Your task to perform on an android device: Search for seafood restaurants on Google Maps Image 0: 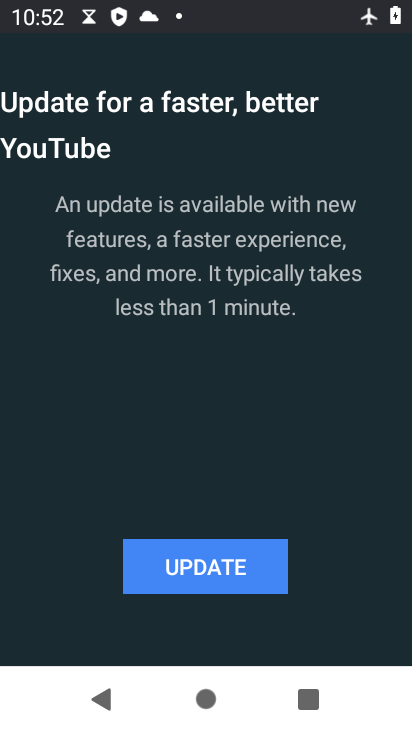
Step 0: press back button
Your task to perform on an android device: Search for seafood restaurants on Google Maps Image 1: 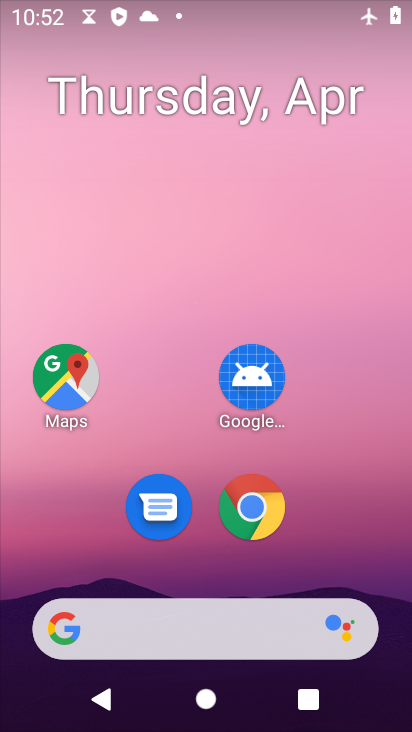
Step 1: drag from (329, 448) to (329, 245)
Your task to perform on an android device: Search for seafood restaurants on Google Maps Image 2: 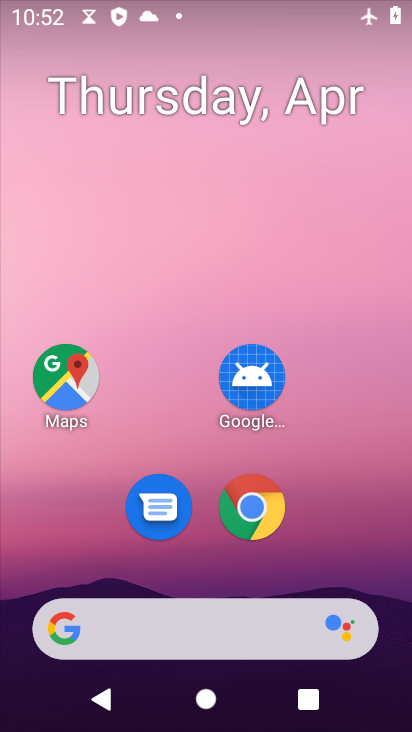
Step 2: drag from (282, 450) to (282, 162)
Your task to perform on an android device: Search for seafood restaurants on Google Maps Image 3: 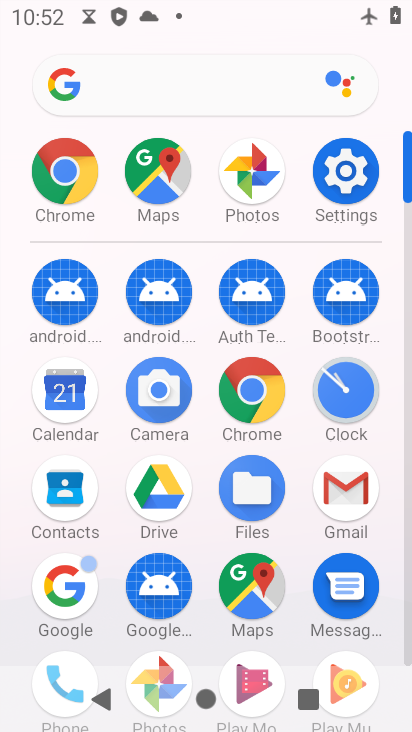
Step 3: click (248, 579)
Your task to perform on an android device: Search for seafood restaurants on Google Maps Image 4: 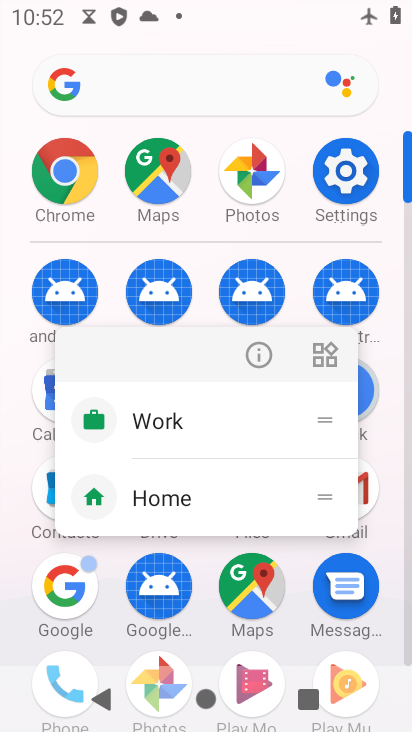
Step 4: click (243, 584)
Your task to perform on an android device: Search for seafood restaurants on Google Maps Image 5: 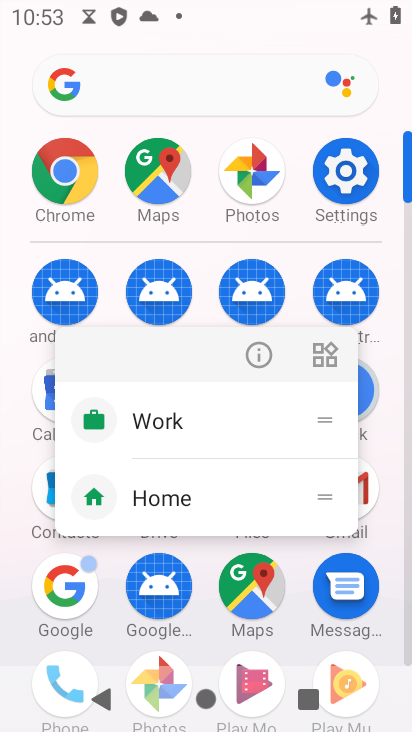
Step 5: click (243, 584)
Your task to perform on an android device: Search for seafood restaurants on Google Maps Image 6: 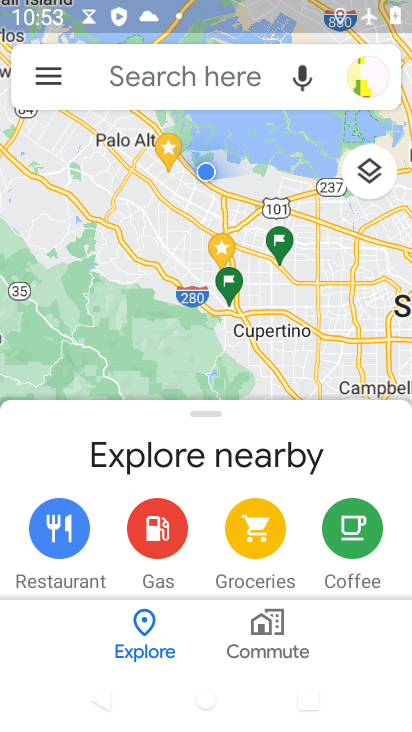
Step 6: click (181, 79)
Your task to perform on an android device: Search for seafood restaurants on Google Maps Image 7: 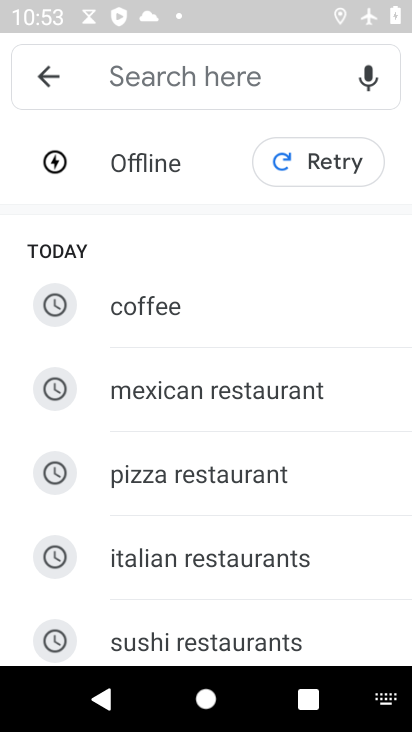
Step 7: type " seafood restaurants"
Your task to perform on an android device: Search for seafood restaurants on Google Maps Image 8: 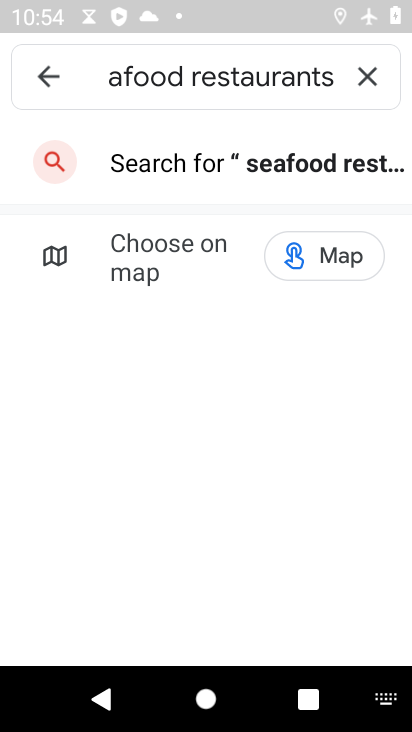
Step 8: click (205, 165)
Your task to perform on an android device: Search for seafood restaurants on Google Maps Image 9: 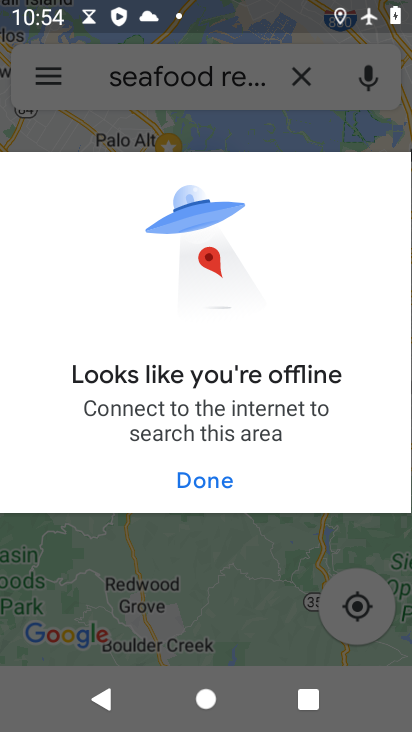
Step 9: task complete